Your task to perform on an android device: find snoozed emails in the gmail app Image 0: 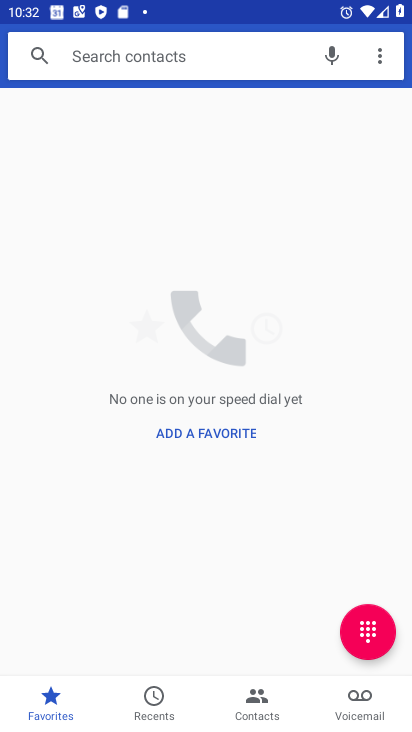
Step 0: press home button
Your task to perform on an android device: find snoozed emails in the gmail app Image 1: 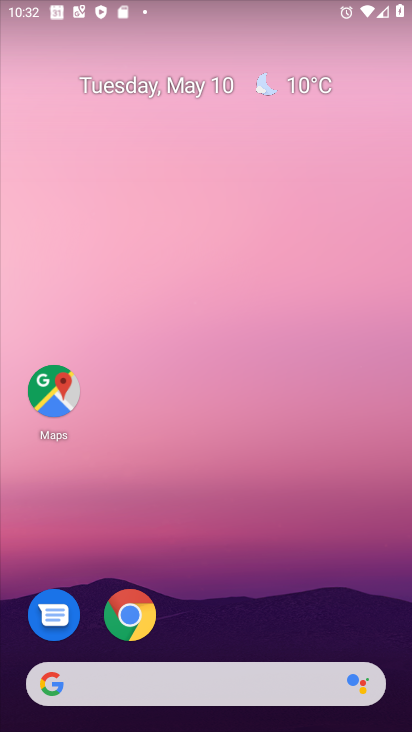
Step 1: drag from (203, 610) to (235, 231)
Your task to perform on an android device: find snoozed emails in the gmail app Image 2: 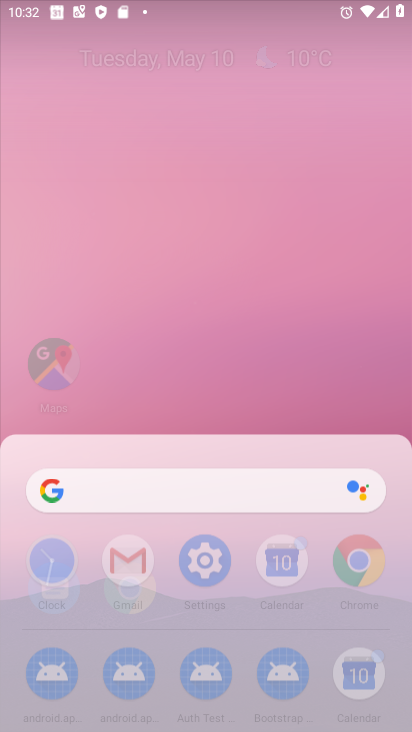
Step 2: click (243, 113)
Your task to perform on an android device: find snoozed emails in the gmail app Image 3: 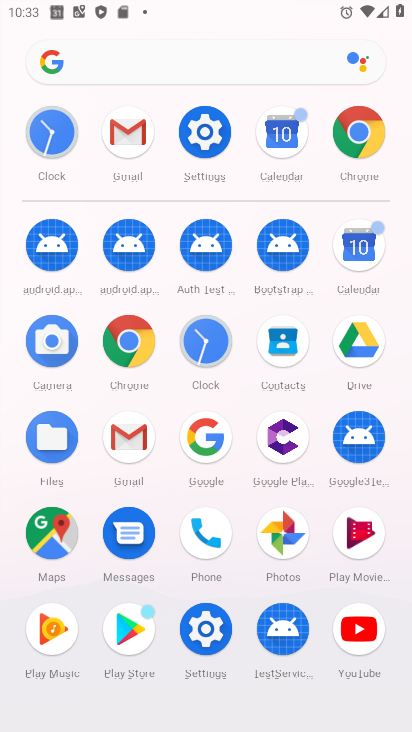
Step 3: click (133, 427)
Your task to perform on an android device: find snoozed emails in the gmail app Image 4: 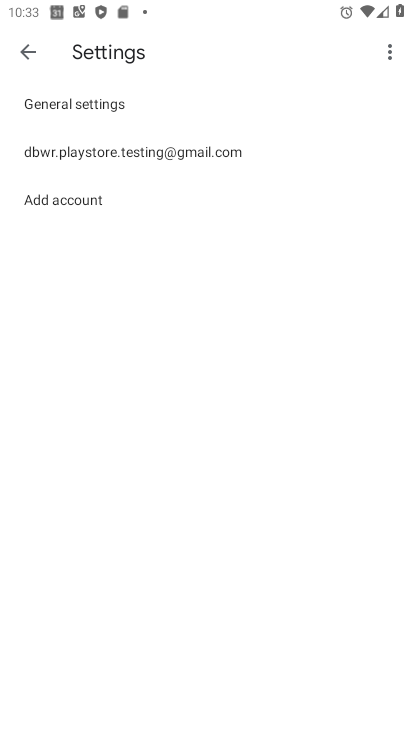
Step 4: click (31, 45)
Your task to perform on an android device: find snoozed emails in the gmail app Image 5: 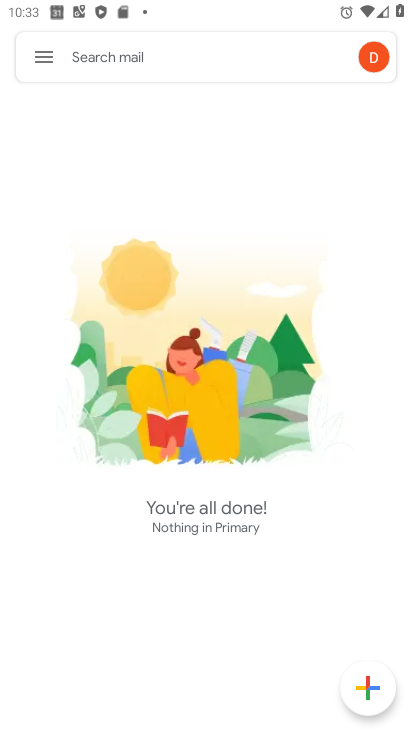
Step 5: click (42, 56)
Your task to perform on an android device: find snoozed emails in the gmail app Image 6: 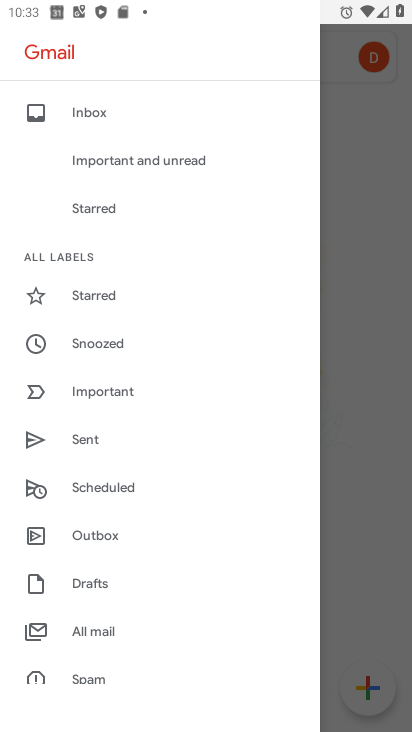
Step 6: click (138, 344)
Your task to perform on an android device: find snoozed emails in the gmail app Image 7: 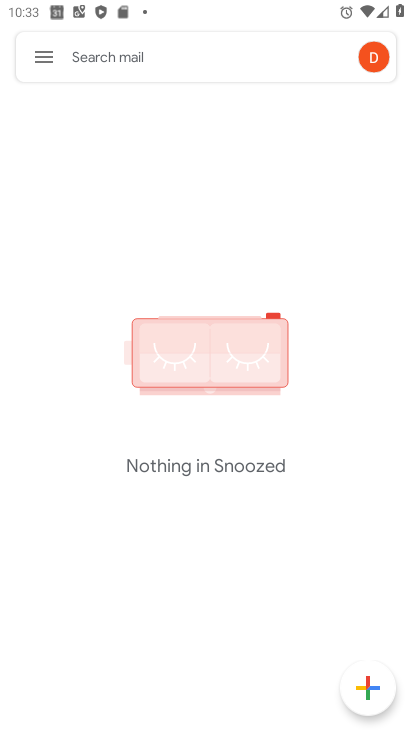
Step 7: task complete